Your task to perform on an android device: turn pop-ups on in chrome Image 0: 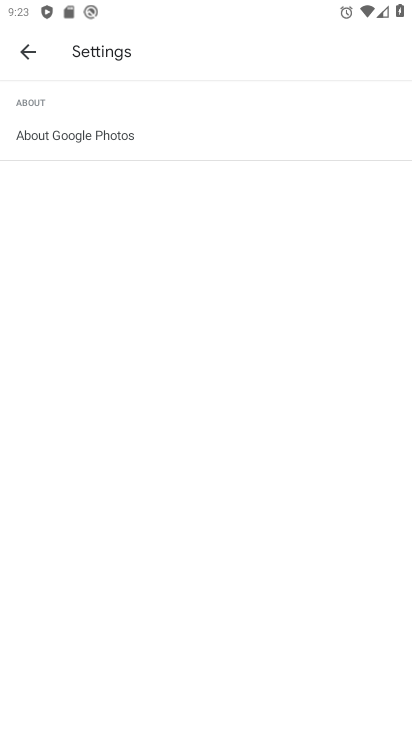
Step 0: press home button
Your task to perform on an android device: turn pop-ups on in chrome Image 1: 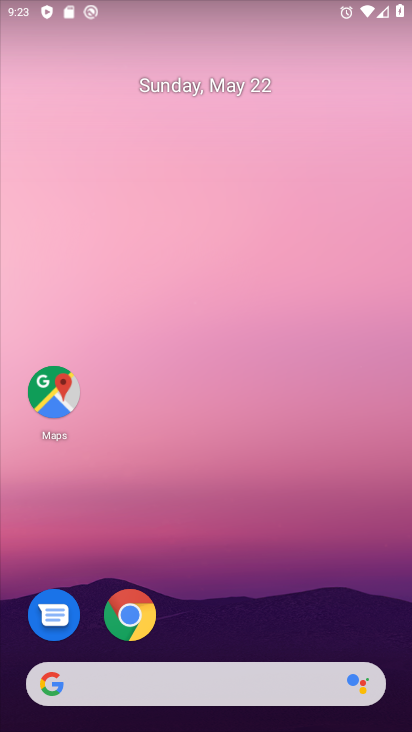
Step 1: click (128, 608)
Your task to perform on an android device: turn pop-ups on in chrome Image 2: 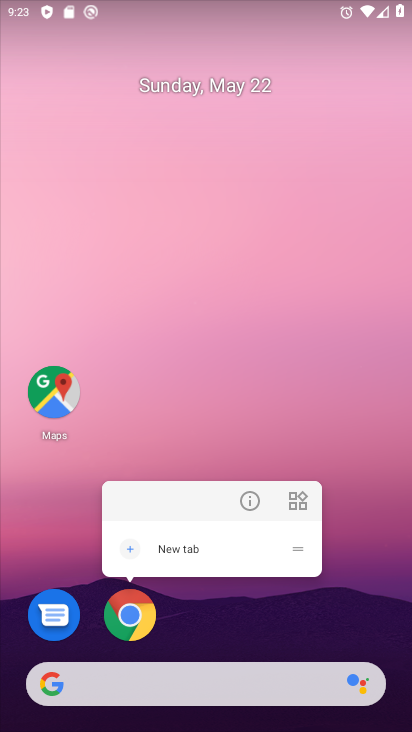
Step 2: click (133, 629)
Your task to perform on an android device: turn pop-ups on in chrome Image 3: 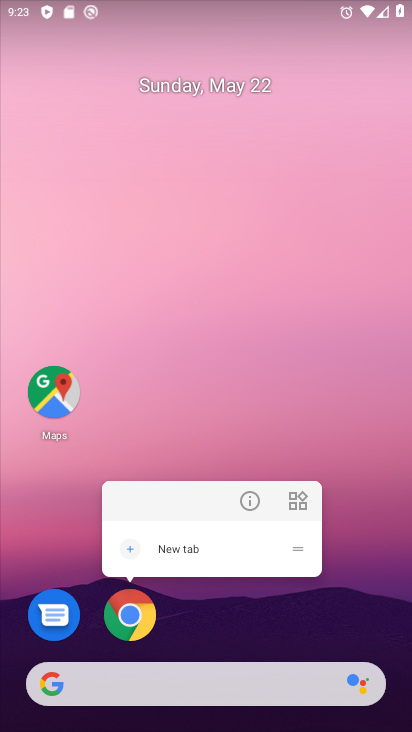
Step 3: click (131, 615)
Your task to perform on an android device: turn pop-ups on in chrome Image 4: 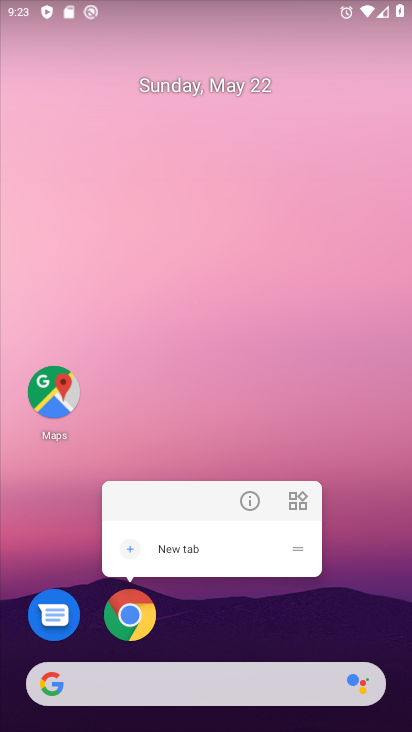
Step 4: click (131, 625)
Your task to perform on an android device: turn pop-ups on in chrome Image 5: 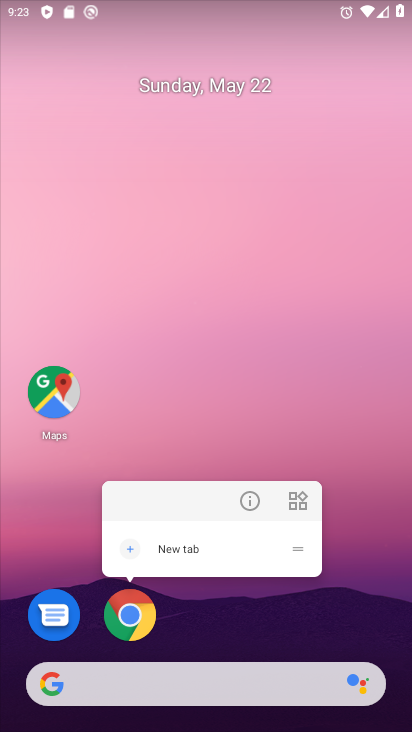
Step 5: click (124, 611)
Your task to perform on an android device: turn pop-ups on in chrome Image 6: 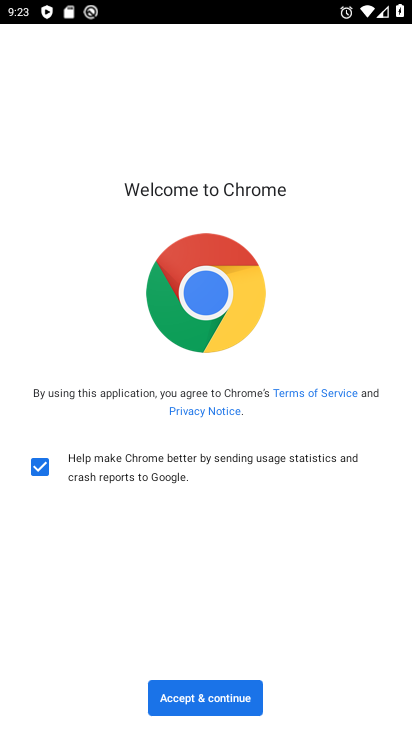
Step 6: click (202, 694)
Your task to perform on an android device: turn pop-ups on in chrome Image 7: 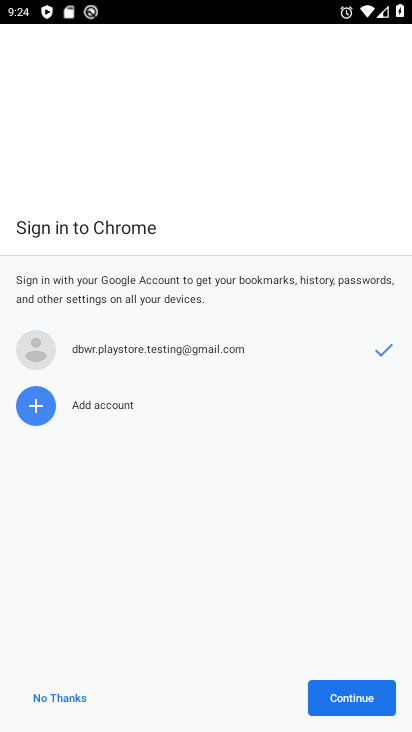
Step 7: click (364, 706)
Your task to perform on an android device: turn pop-ups on in chrome Image 8: 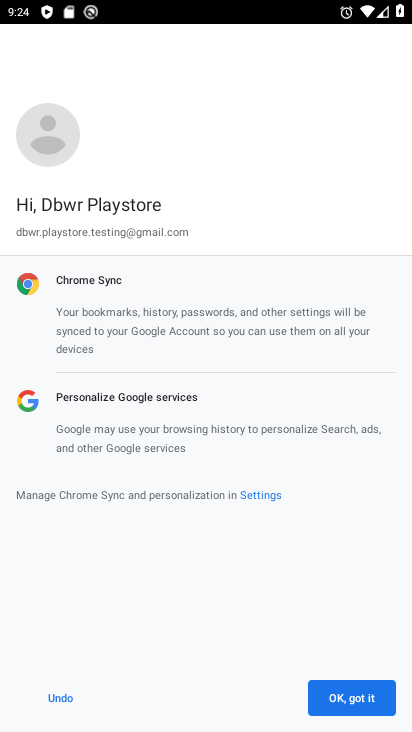
Step 8: click (364, 705)
Your task to perform on an android device: turn pop-ups on in chrome Image 9: 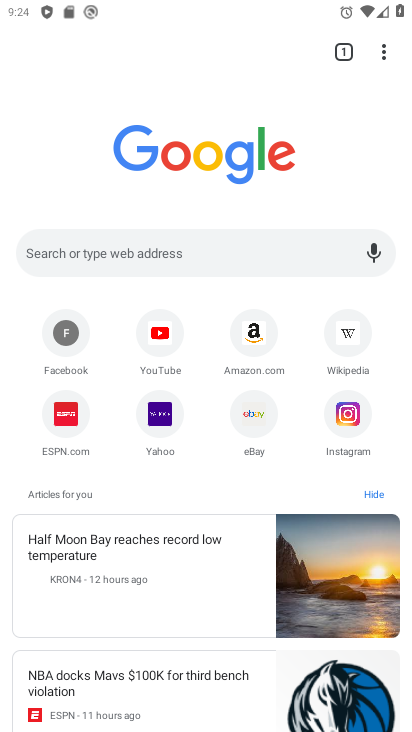
Step 9: drag from (386, 52) to (276, 436)
Your task to perform on an android device: turn pop-ups on in chrome Image 10: 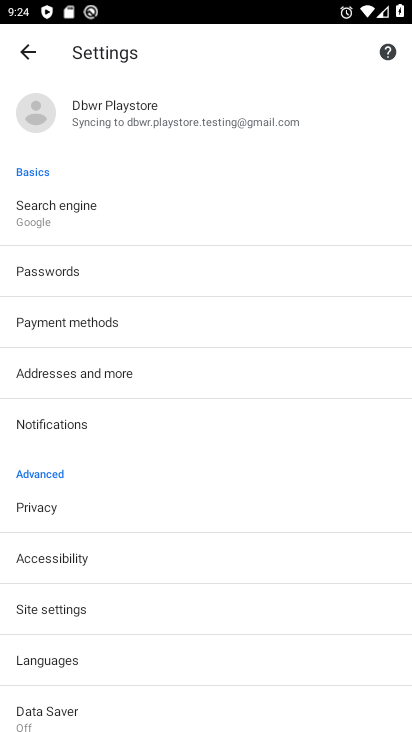
Step 10: drag from (133, 671) to (116, 377)
Your task to perform on an android device: turn pop-ups on in chrome Image 11: 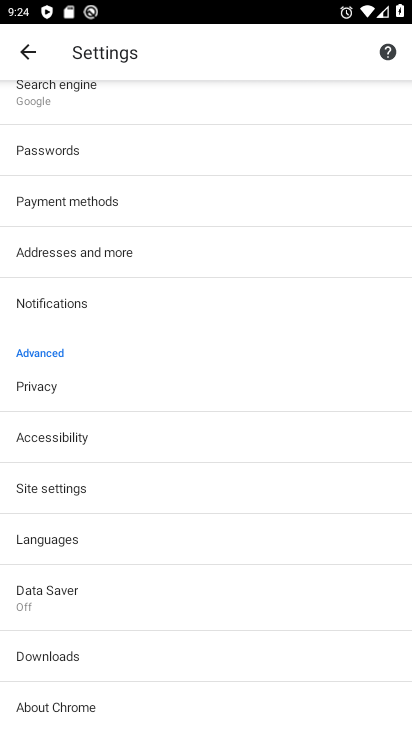
Step 11: click (79, 486)
Your task to perform on an android device: turn pop-ups on in chrome Image 12: 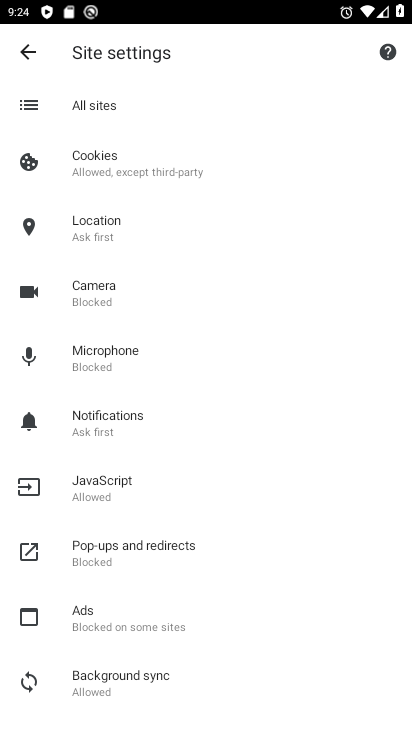
Step 12: click (136, 549)
Your task to perform on an android device: turn pop-ups on in chrome Image 13: 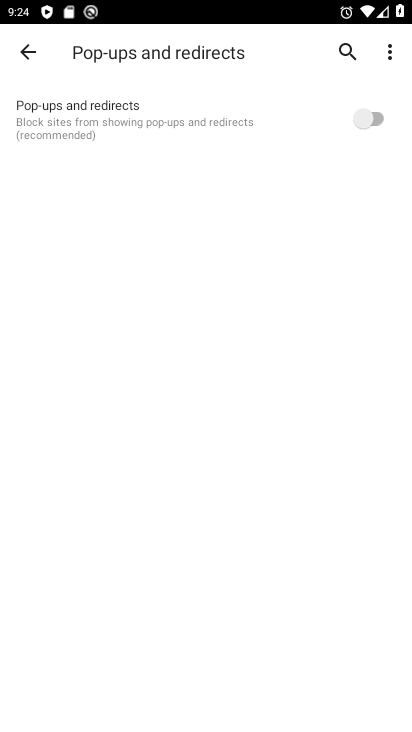
Step 13: click (357, 117)
Your task to perform on an android device: turn pop-ups on in chrome Image 14: 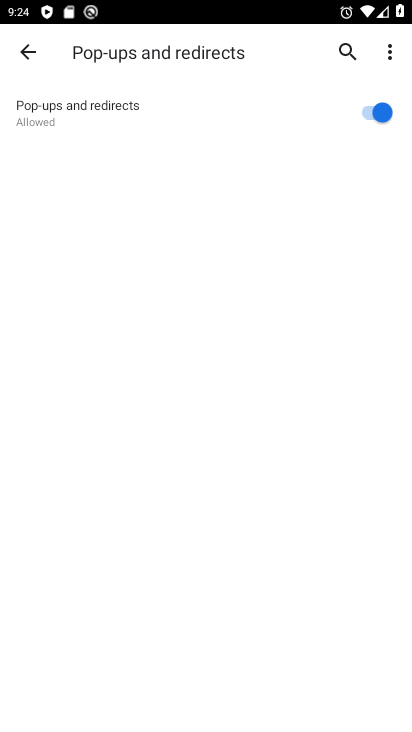
Step 14: task complete